Your task to perform on an android device: Search for the new Air Jordan 13 on Nike.com Image 0: 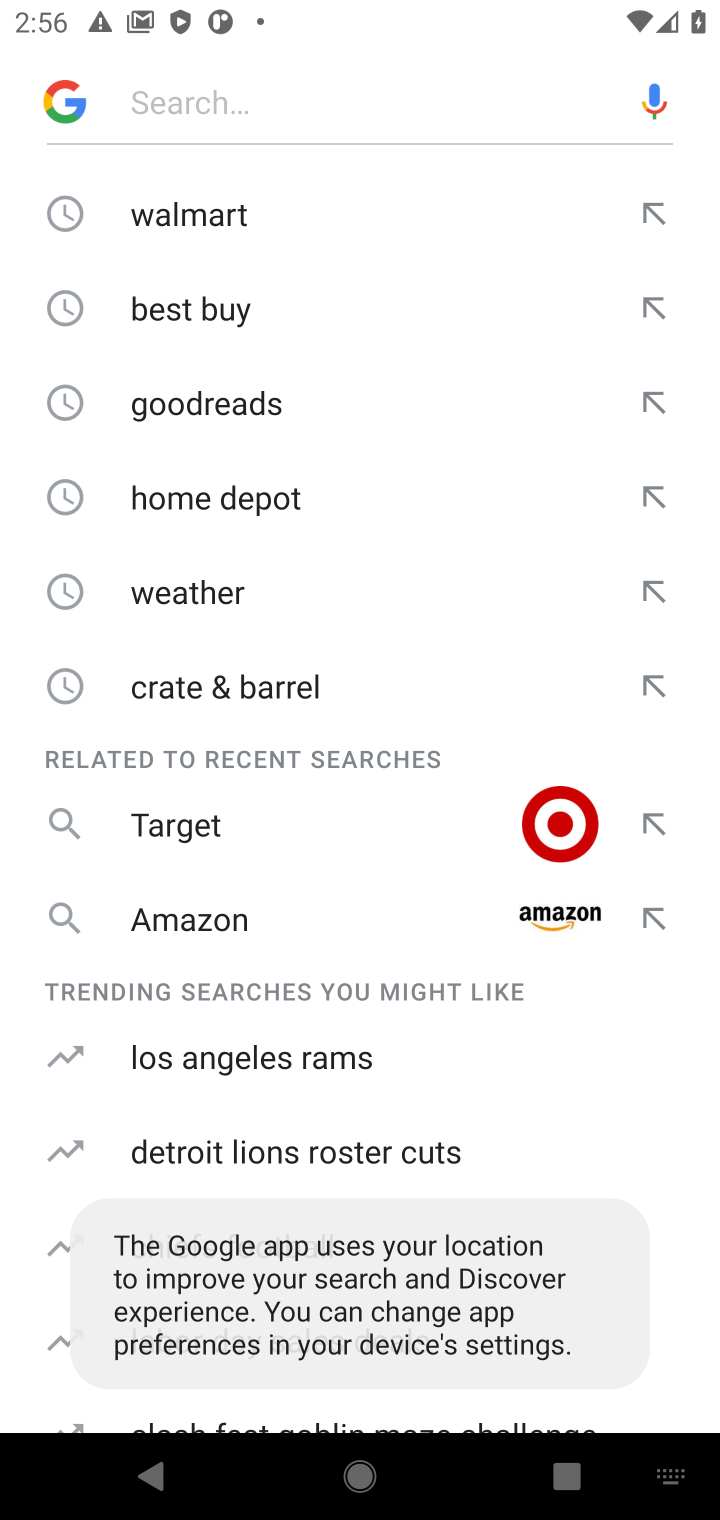
Step 0: press home button
Your task to perform on an android device: Search for the new Air Jordan 13 on Nike.com Image 1: 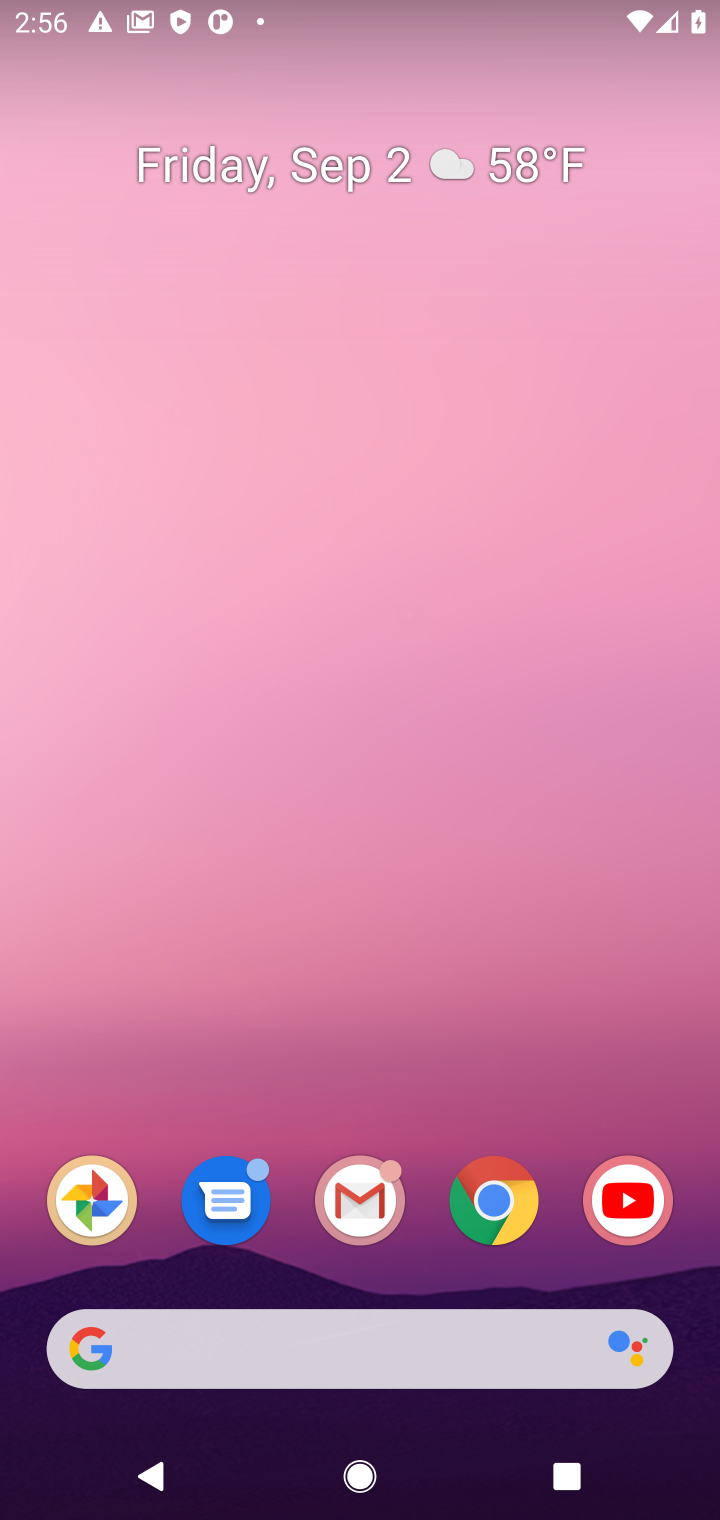
Step 1: click (488, 1224)
Your task to perform on an android device: Search for the new Air Jordan 13 on Nike.com Image 2: 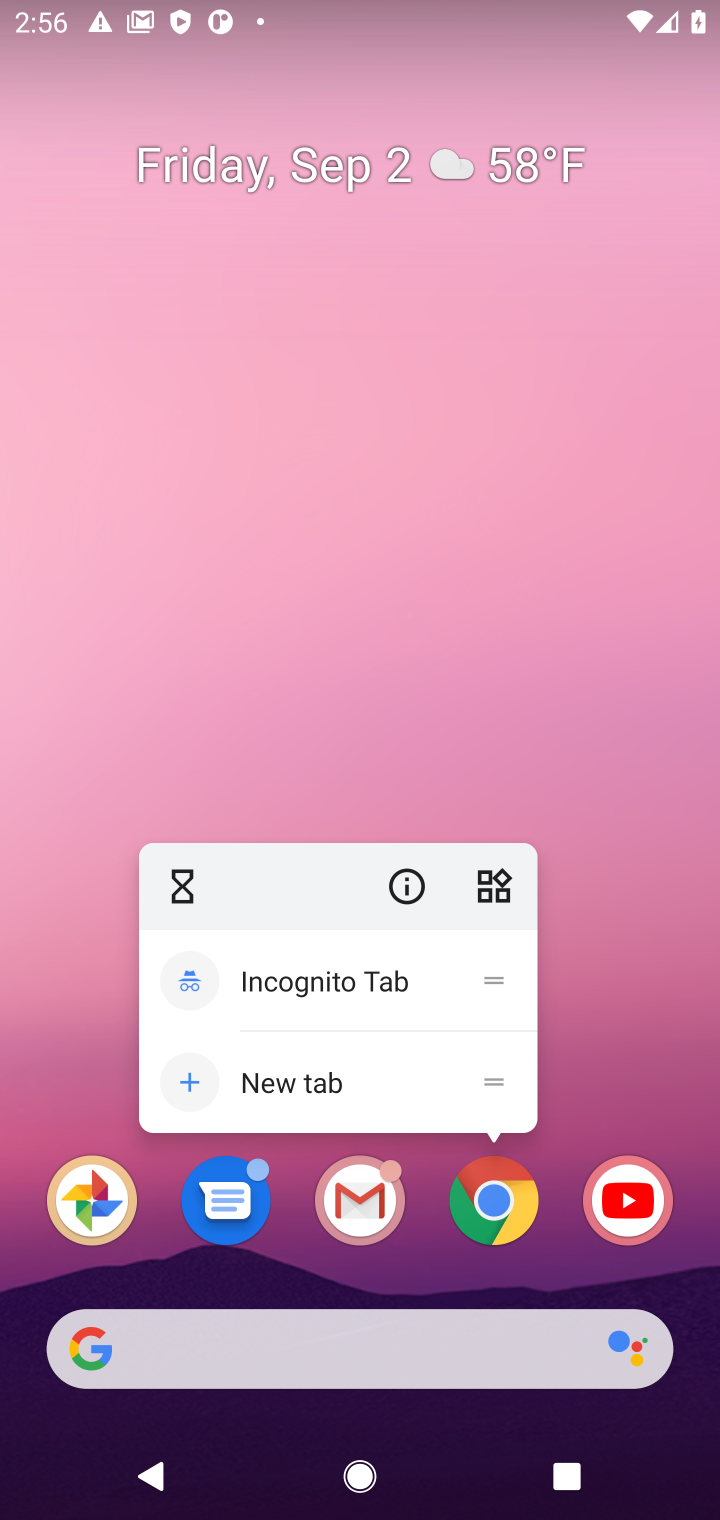
Step 2: click (498, 1192)
Your task to perform on an android device: Search for the new Air Jordan 13 on Nike.com Image 3: 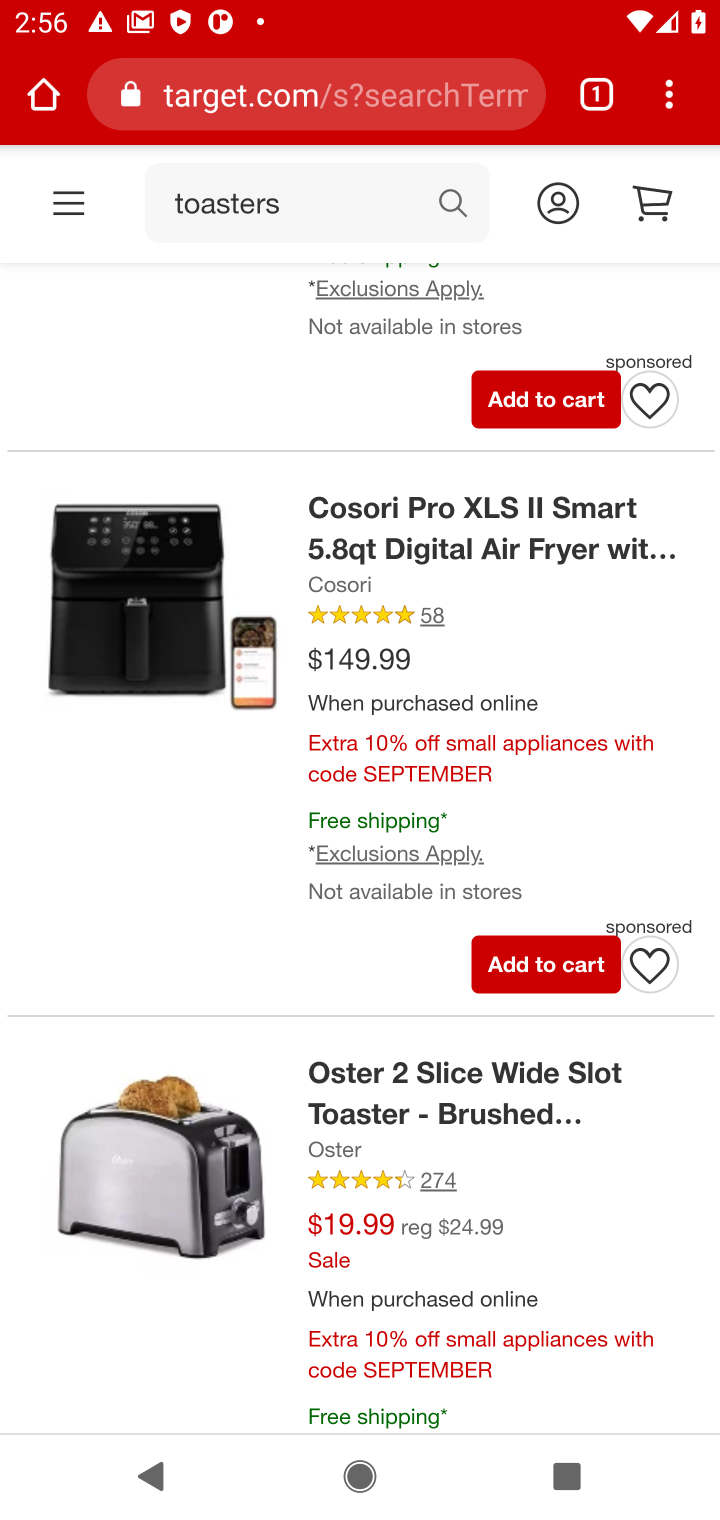
Step 3: click (443, 101)
Your task to perform on an android device: Search for the new Air Jordan 13 on Nike.com Image 4: 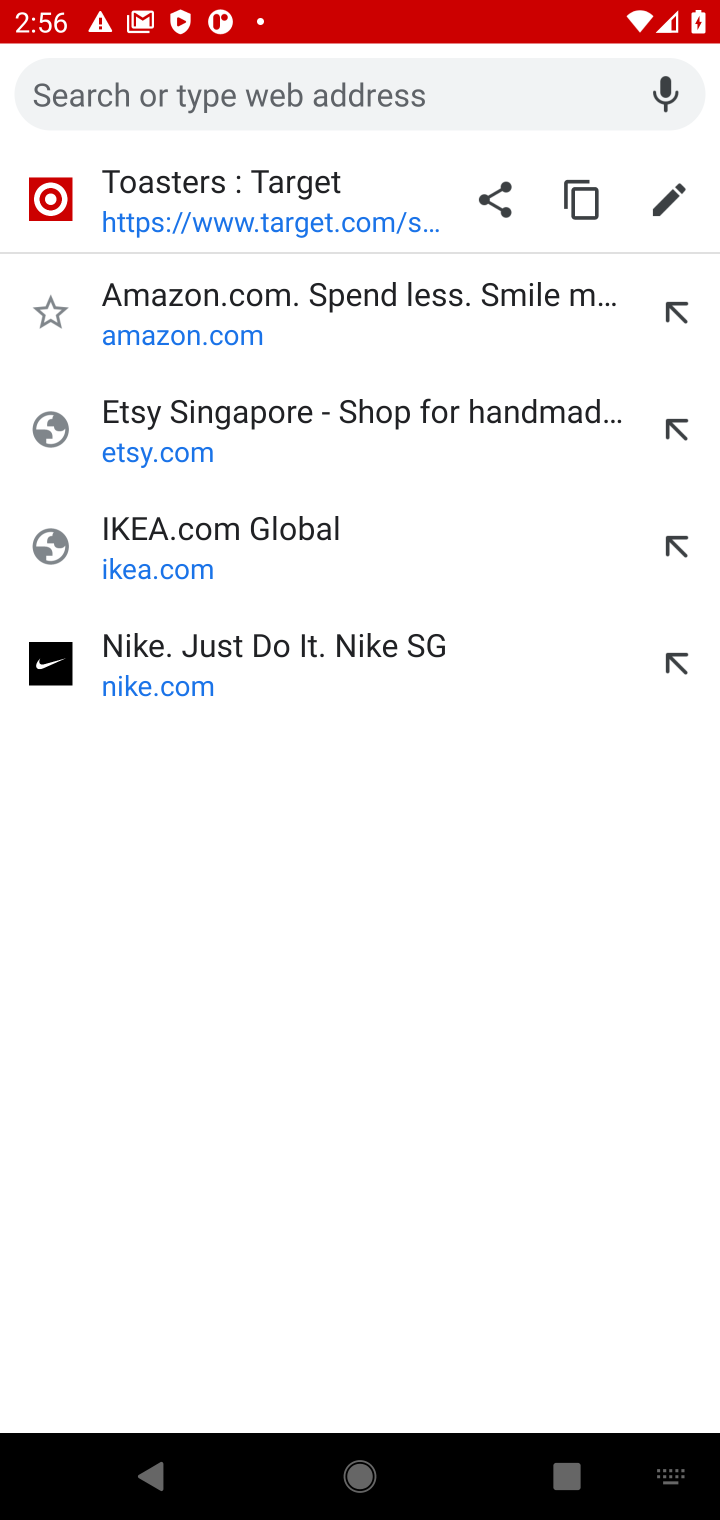
Step 4: click (354, 96)
Your task to perform on an android device: Search for the new Air Jordan 13 on Nike.com Image 5: 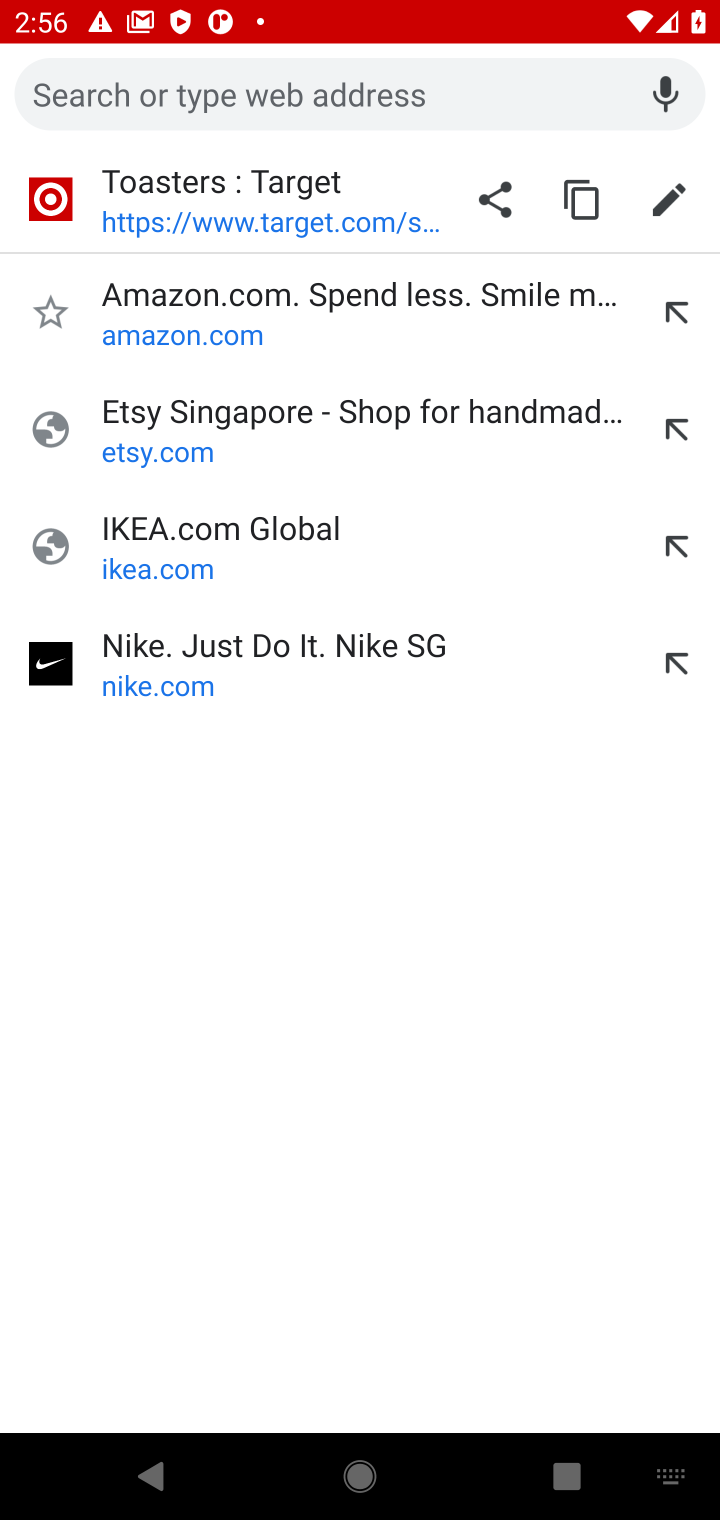
Step 5: type "Nike.com"
Your task to perform on an android device: Search for the new Air Jordan 13 on Nike.com Image 6: 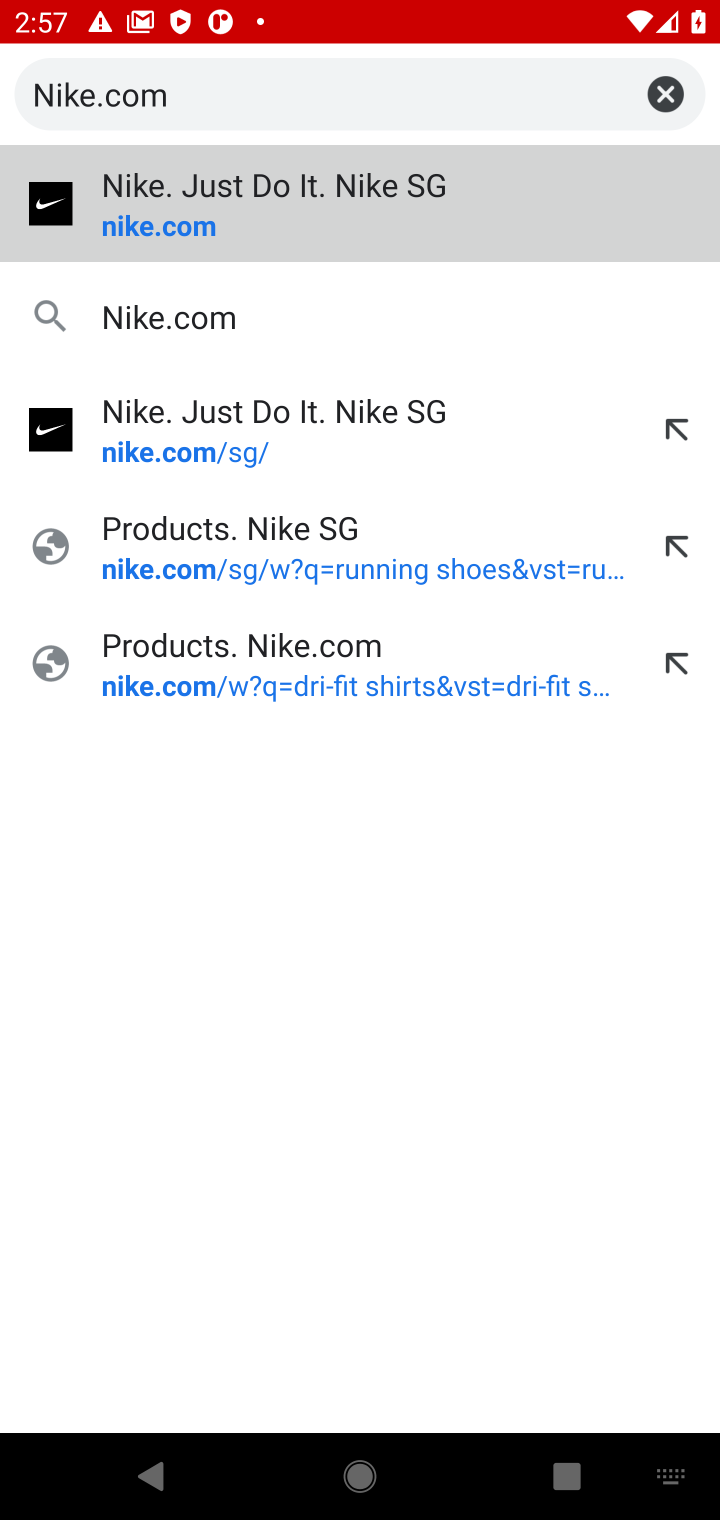
Step 6: press enter
Your task to perform on an android device: Search for the new Air Jordan 13 on Nike.com Image 7: 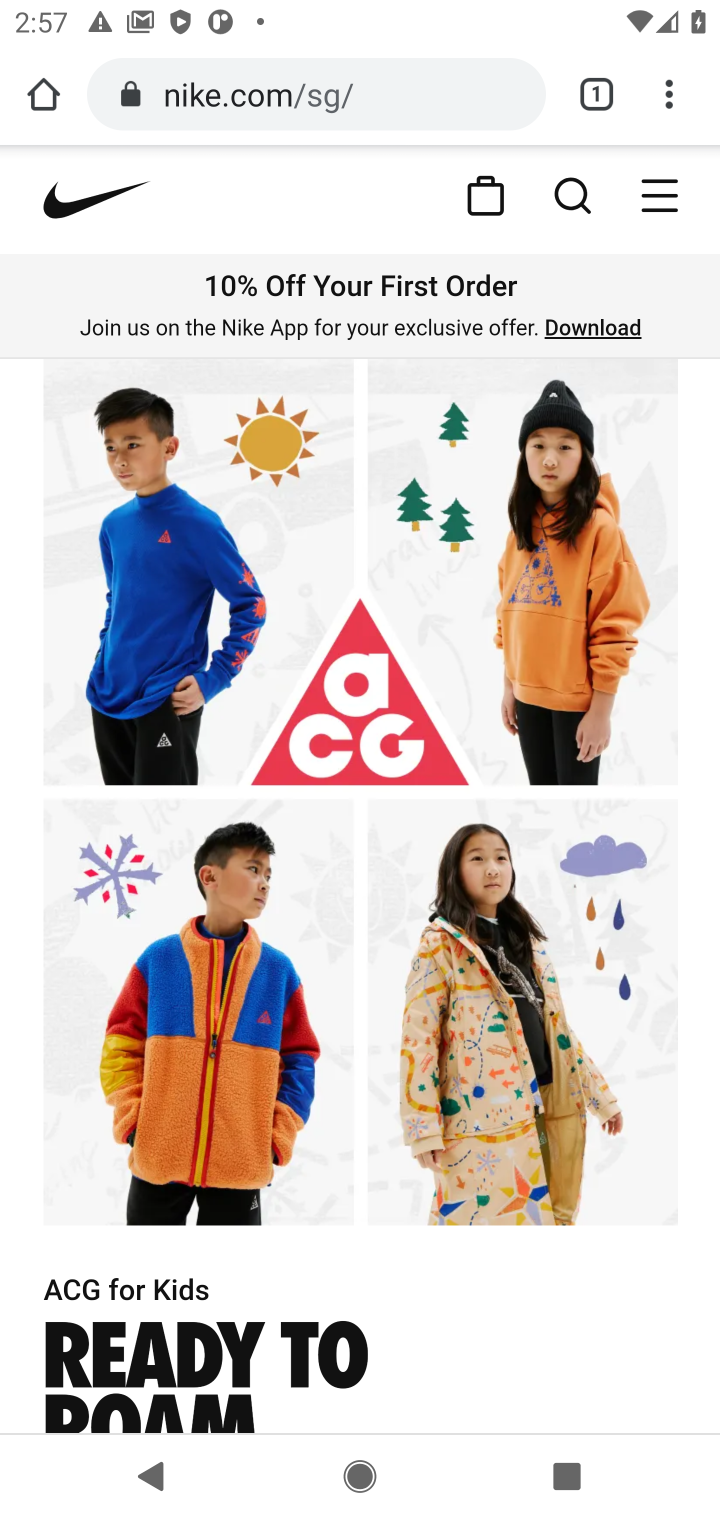
Step 7: click (548, 182)
Your task to perform on an android device: Search for the new Air Jordan 13 on Nike.com Image 8: 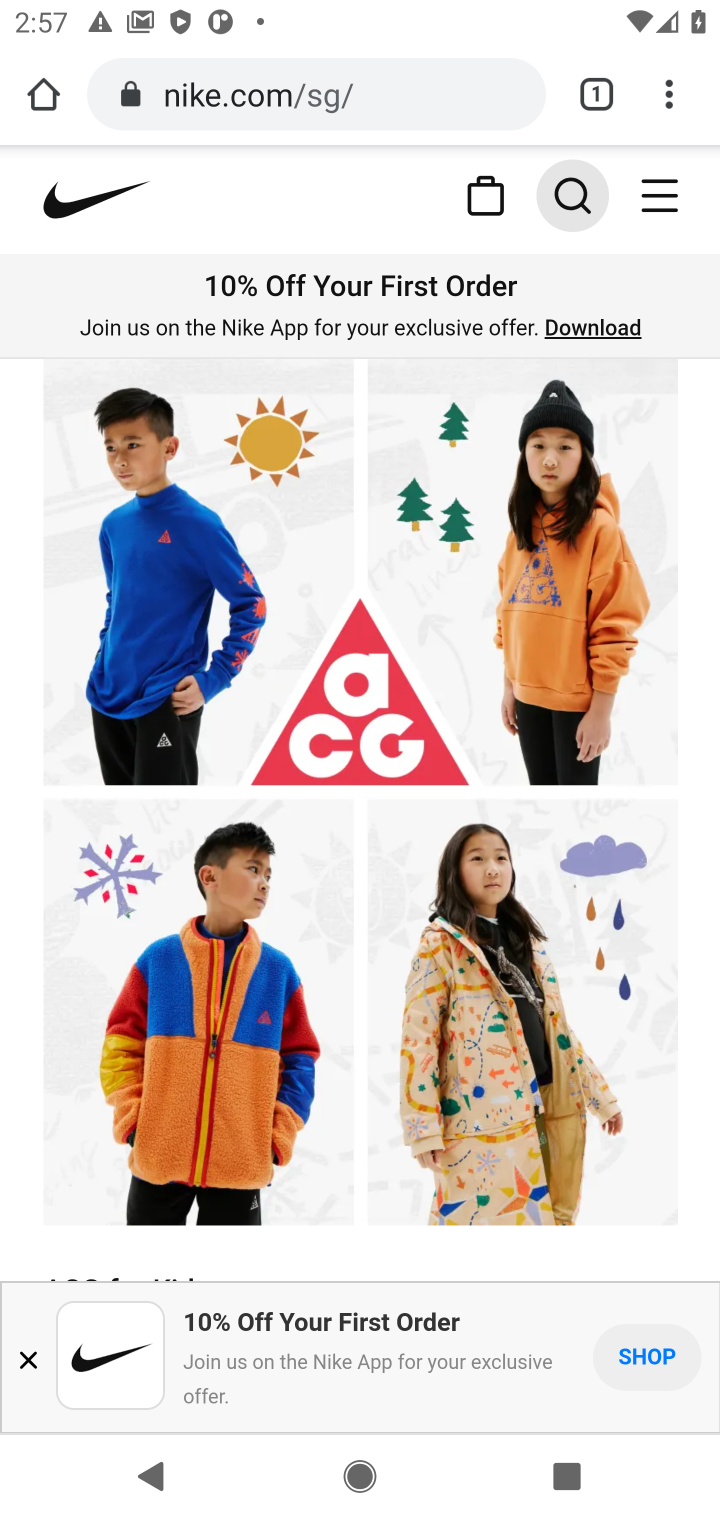
Step 8: click (528, 182)
Your task to perform on an android device: Search for the new Air Jordan 13 on Nike.com Image 9: 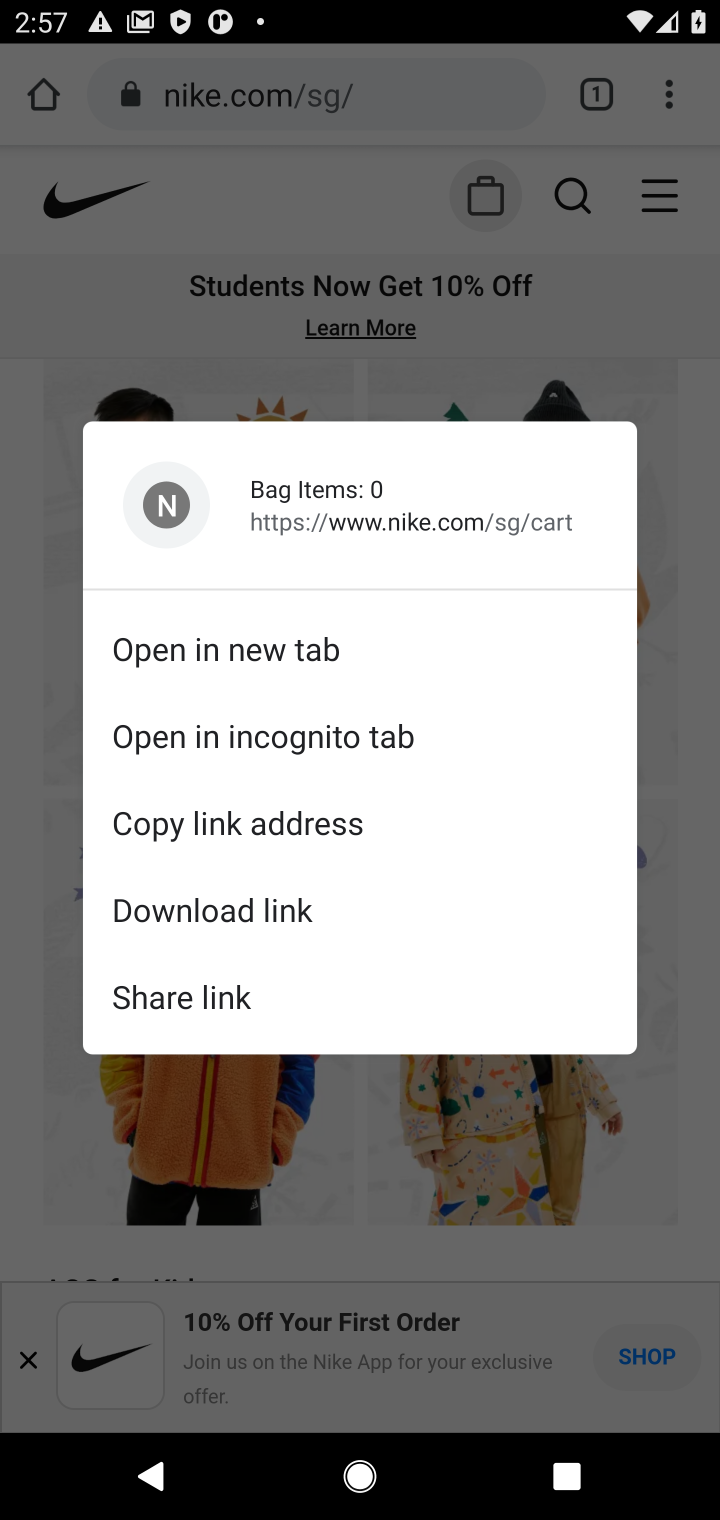
Step 9: click (540, 182)
Your task to perform on an android device: Search for the new Air Jordan 13 on Nike.com Image 10: 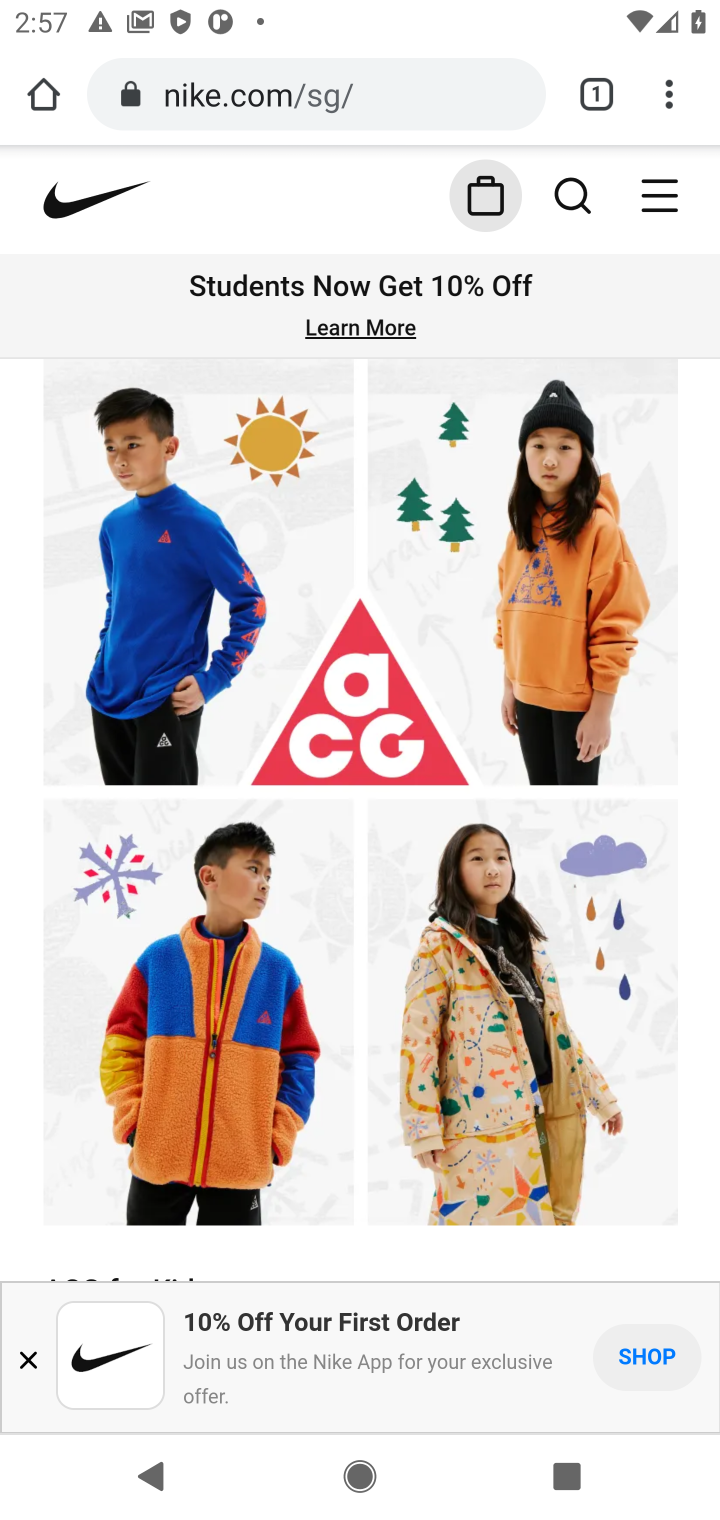
Step 10: click (419, 203)
Your task to perform on an android device: Search for the new Air Jordan 13 on Nike.com Image 11: 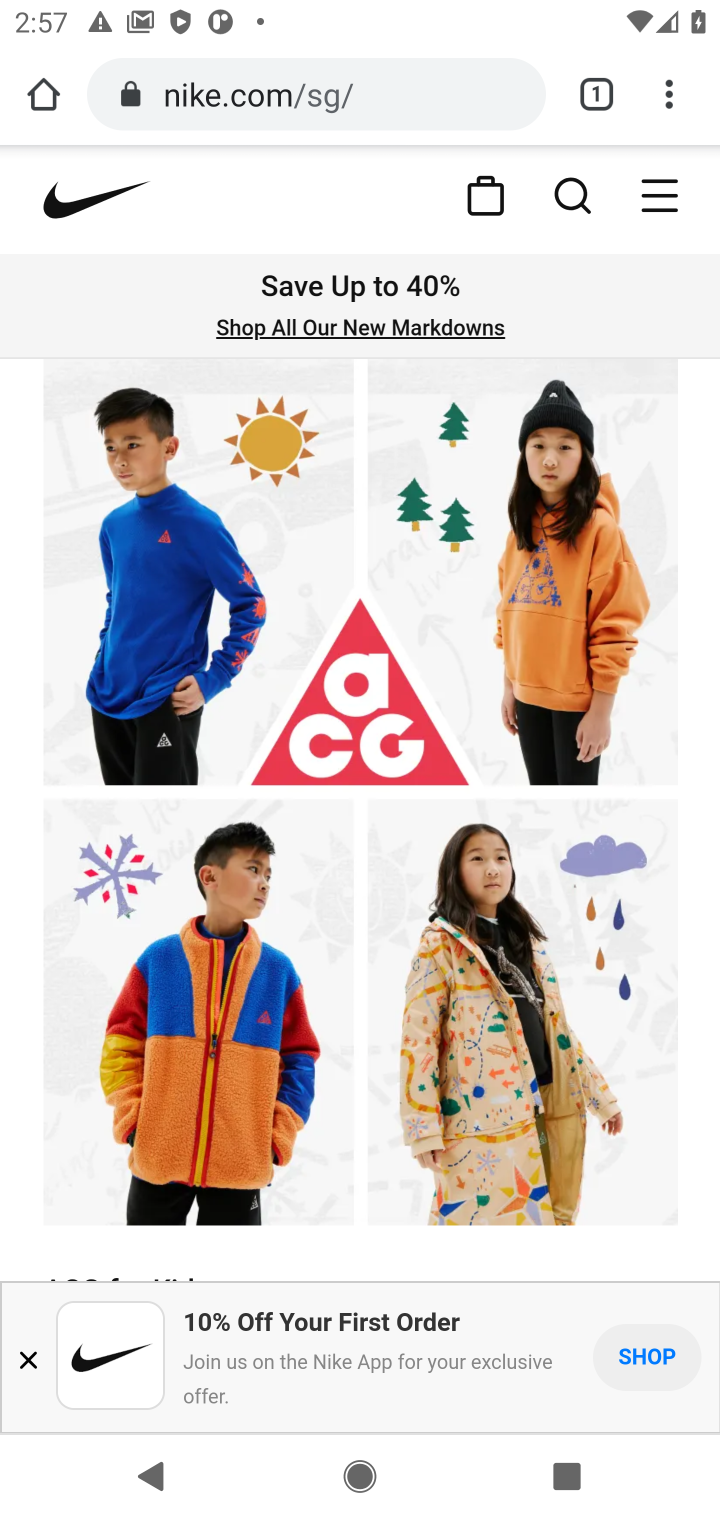
Step 11: click (551, 216)
Your task to perform on an android device: Search for the new Air Jordan 13 on Nike.com Image 12: 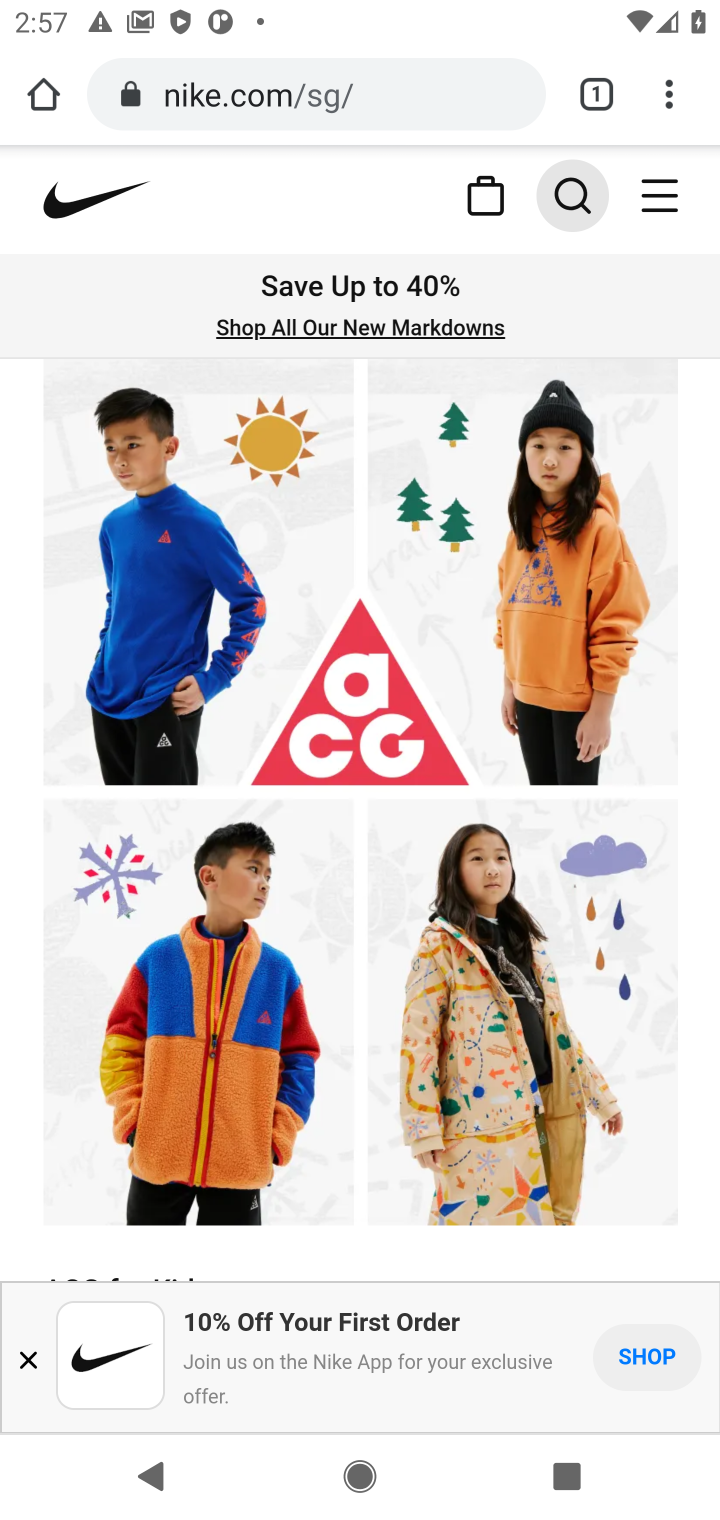
Step 12: click (524, 169)
Your task to perform on an android device: Search for the new Air Jordan 13 on Nike.com Image 13: 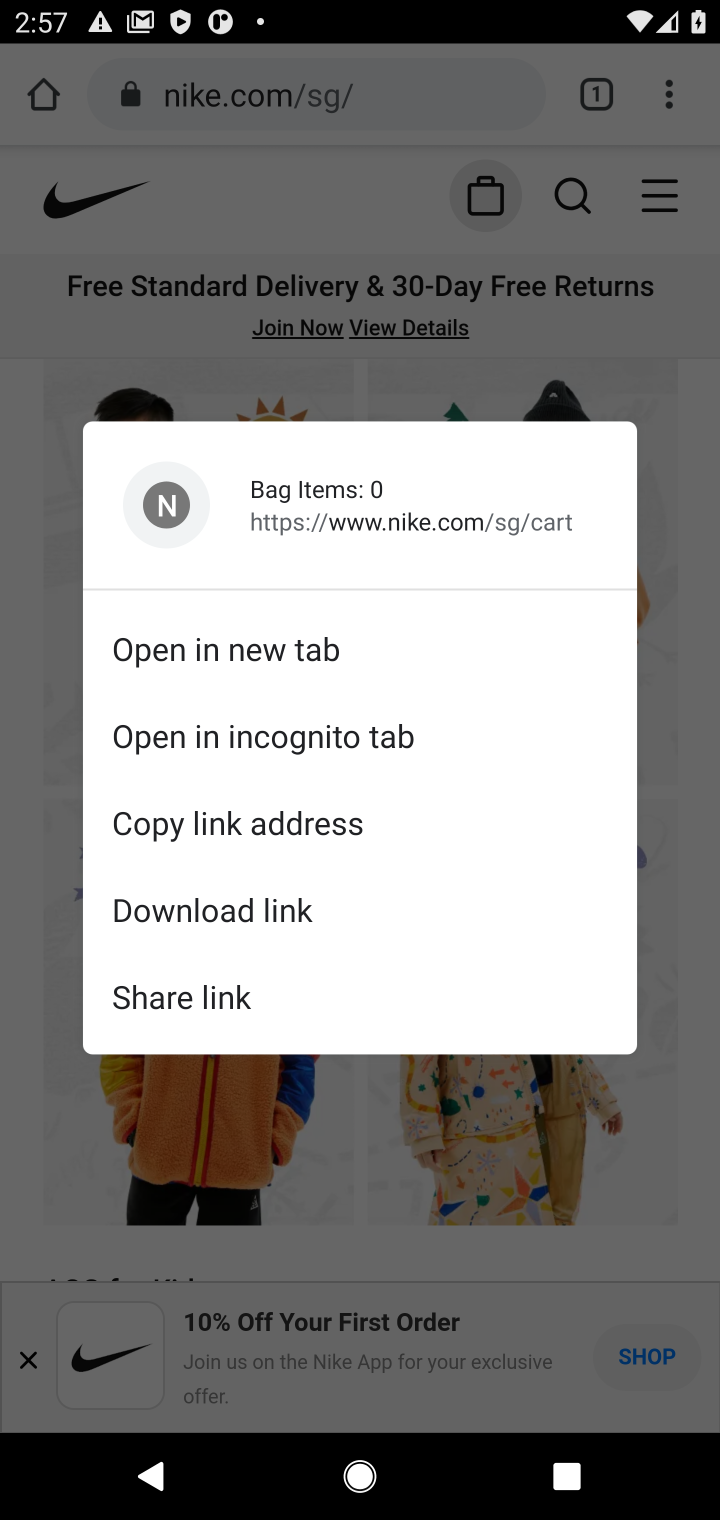
Step 13: click (383, 204)
Your task to perform on an android device: Search for the new Air Jordan 13 on Nike.com Image 14: 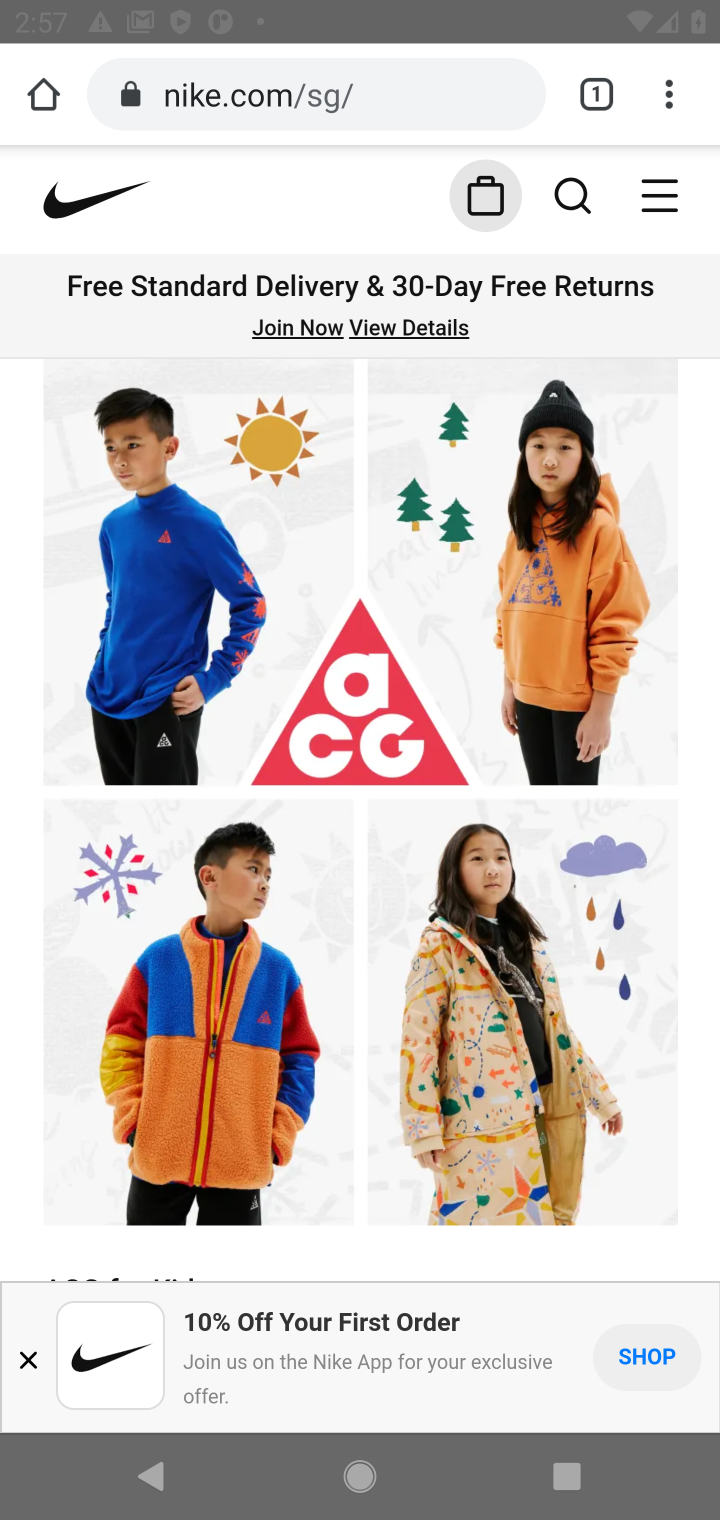
Step 14: click (573, 198)
Your task to perform on an android device: Search for the new Air Jordan 13 on Nike.com Image 15: 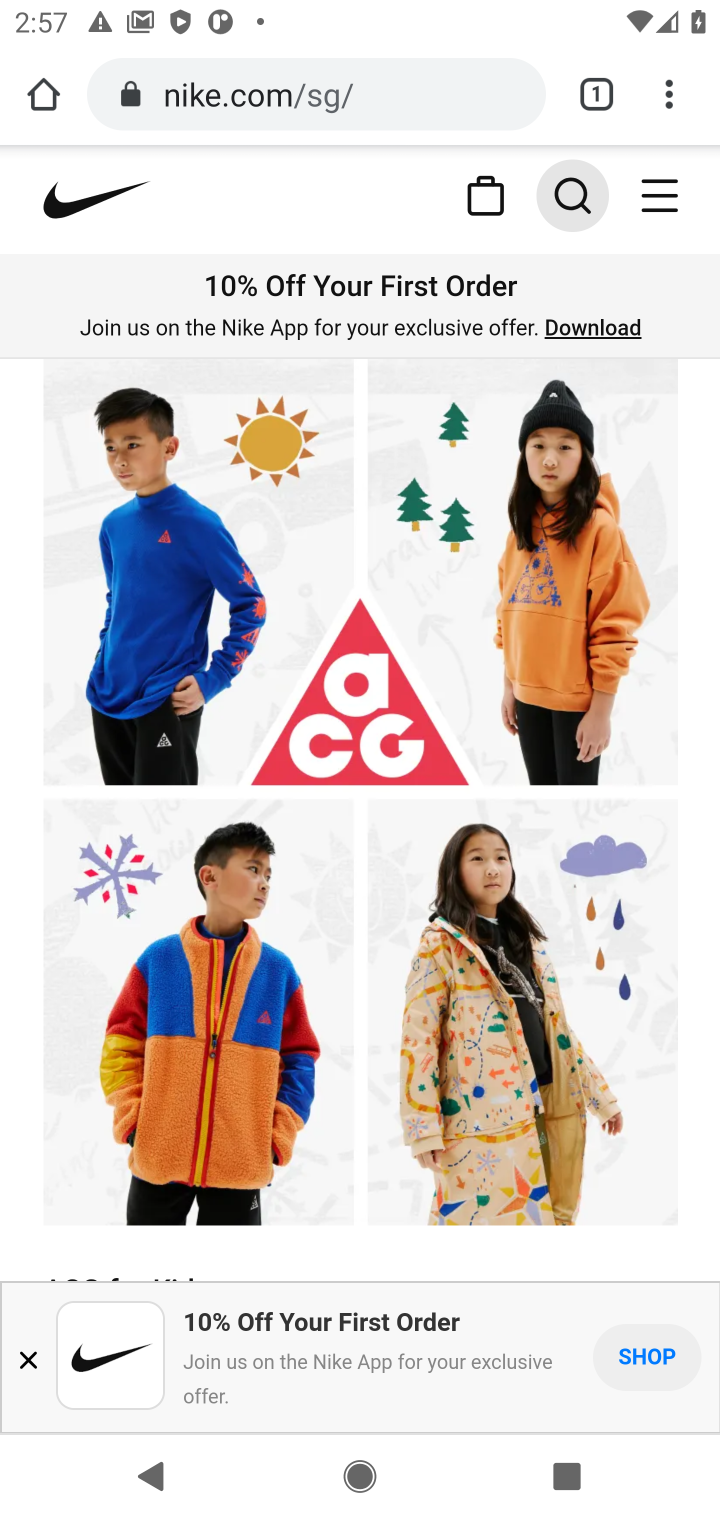
Step 15: click (533, 204)
Your task to perform on an android device: Search for the new Air Jordan 13 on Nike.com Image 16: 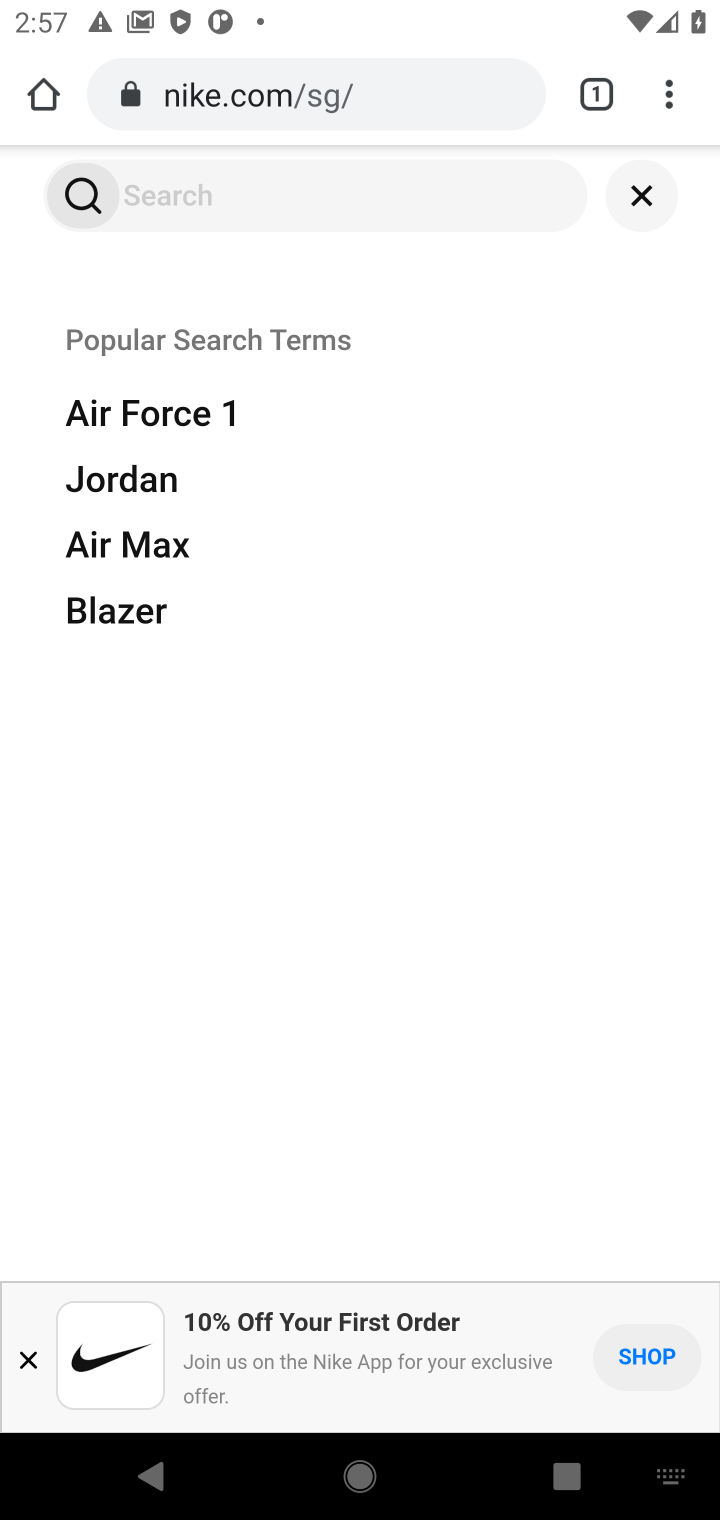
Step 16: click (324, 189)
Your task to perform on an android device: Search for the new Air Jordan 13 on Nike.com Image 17: 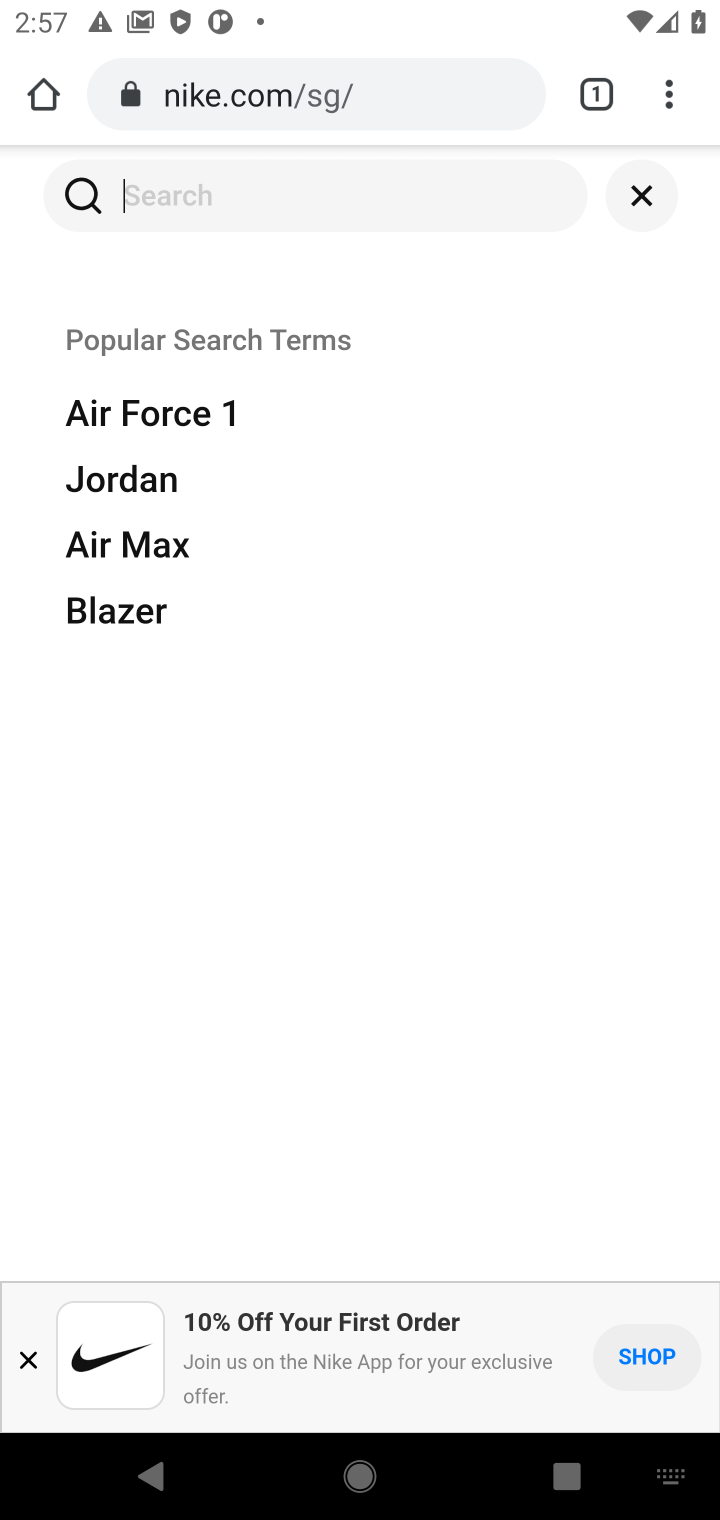
Step 17: type " Air Jordan 13"
Your task to perform on an android device: Search for the new Air Jordan 13 on Nike.com Image 18: 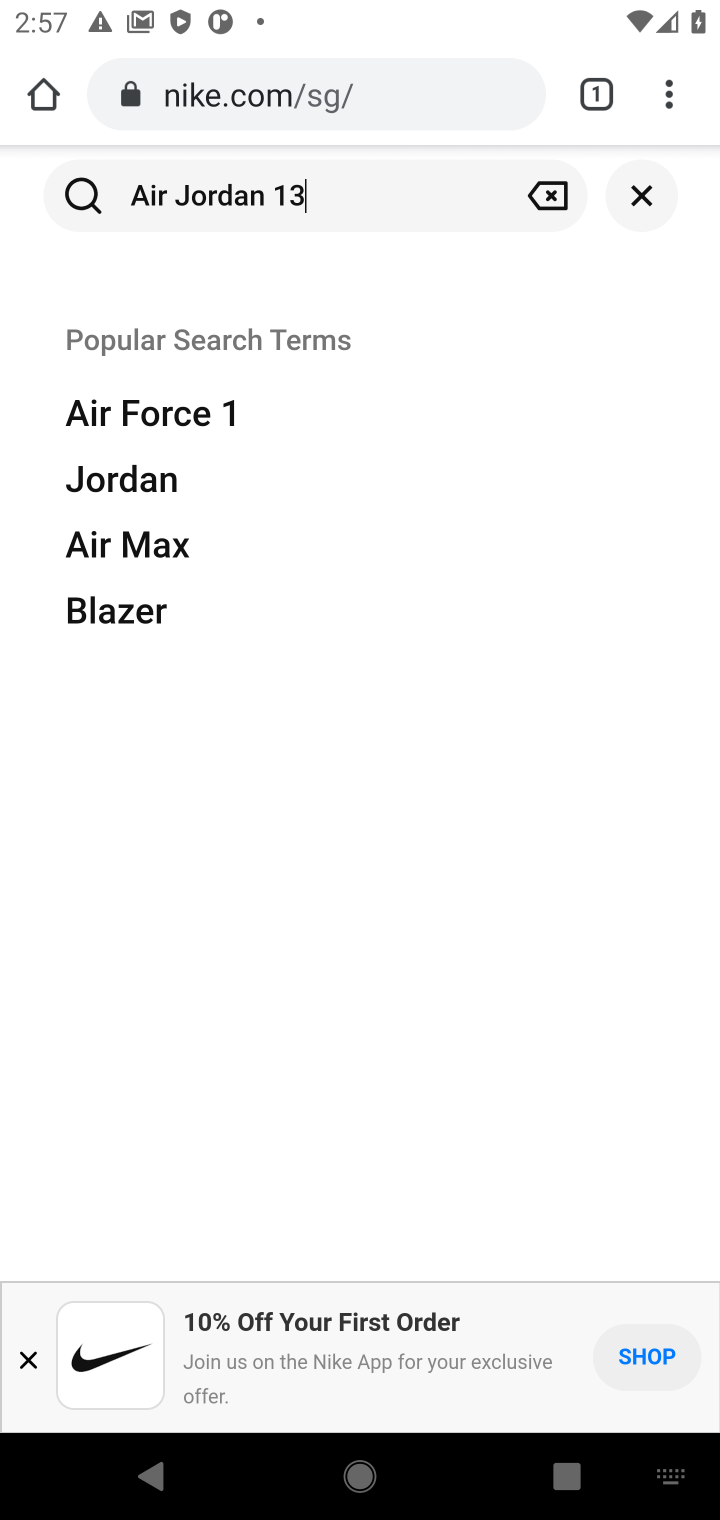
Step 18: press enter
Your task to perform on an android device: Search for the new Air Jordan 13 on Nike.com Image 19: 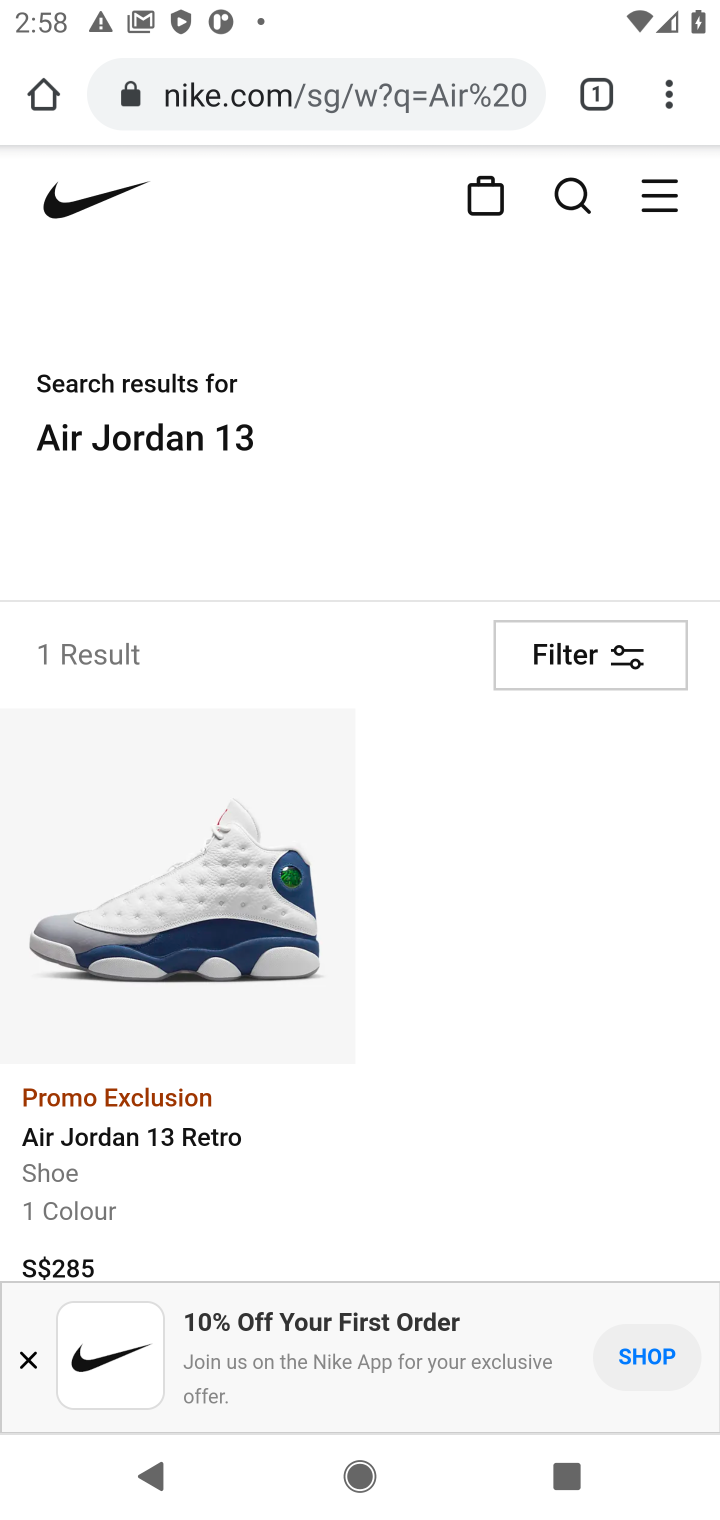
Step 19: task complete